Your task to perform on an android device: What's the latest news in space exploration? Image 0: 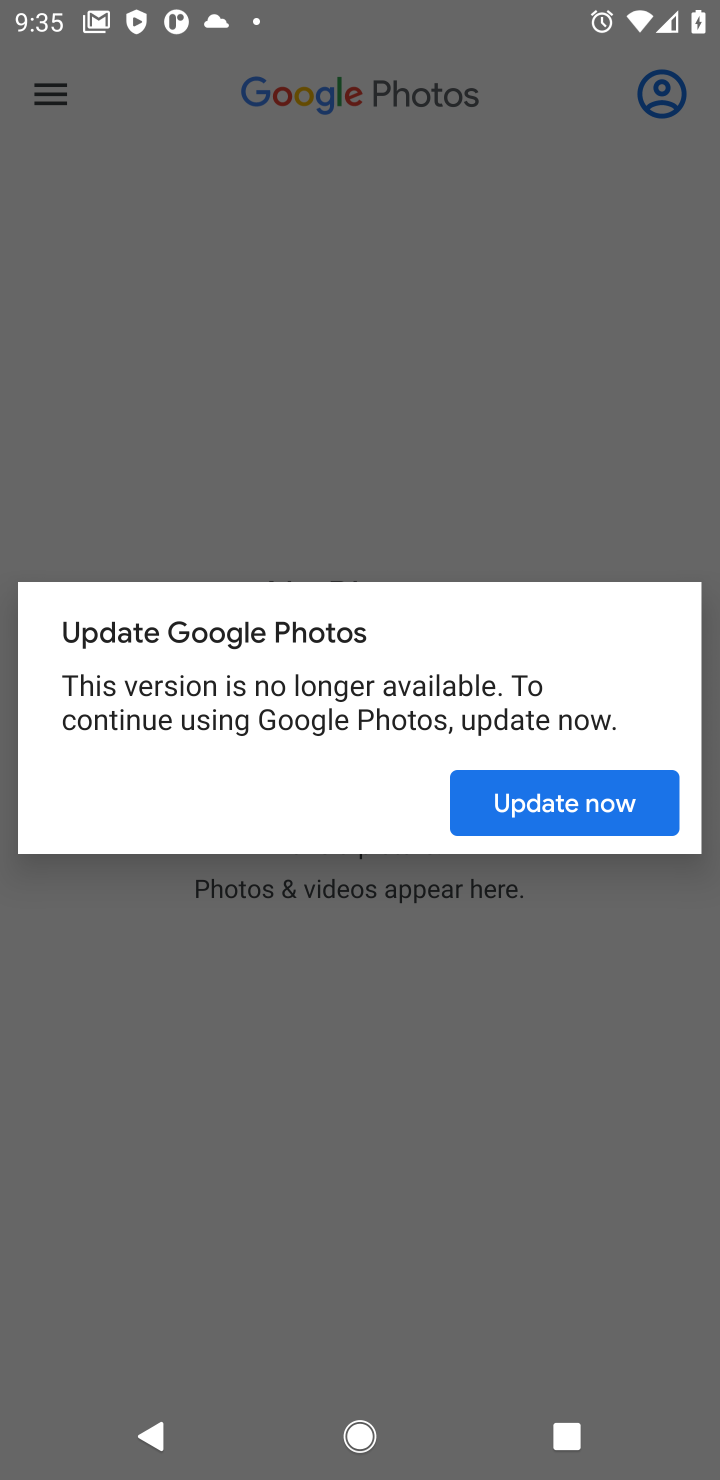
Step 0: press home button
Your task to perform on an android device: What's the latest news in space exploration? Image 1: 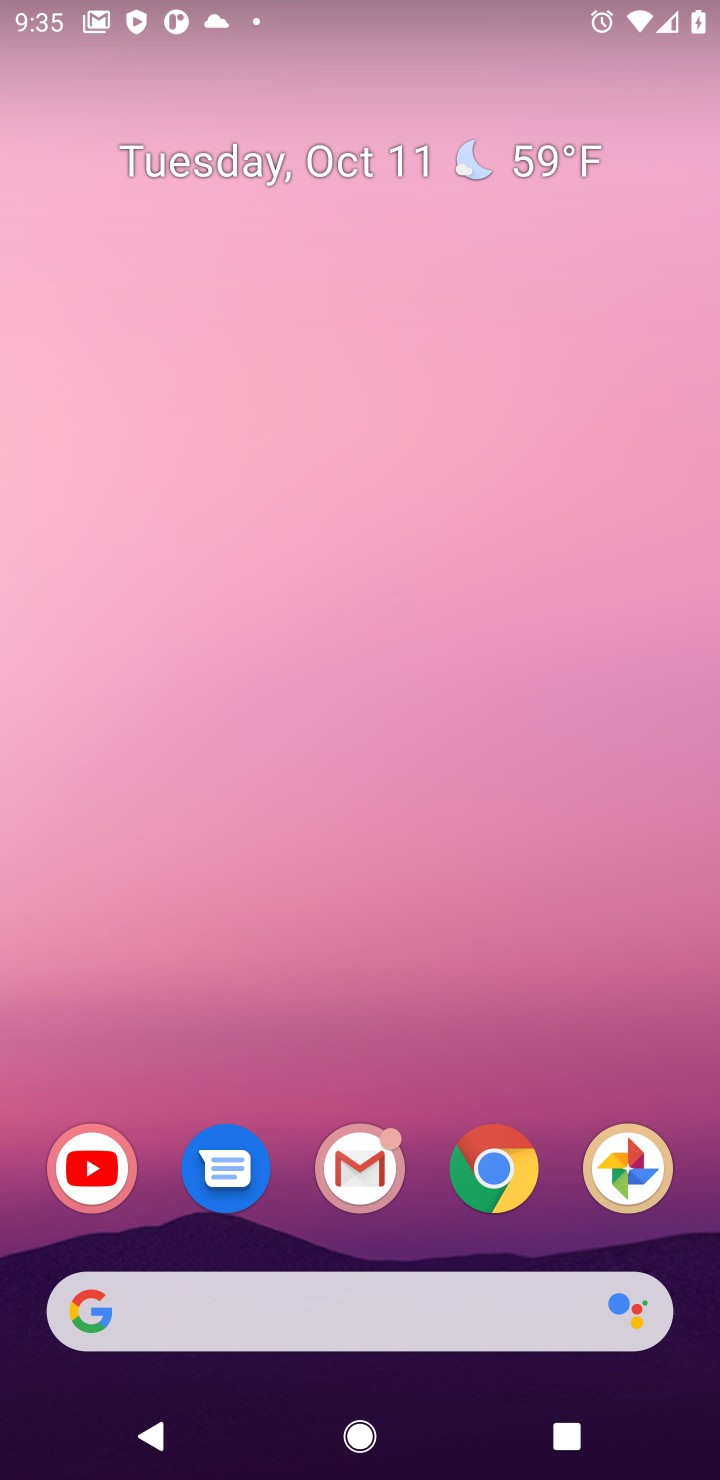
Step 1: click (464, 1173)
Your task to perform on an android device: What's the latest news in space exploration? Image 2: 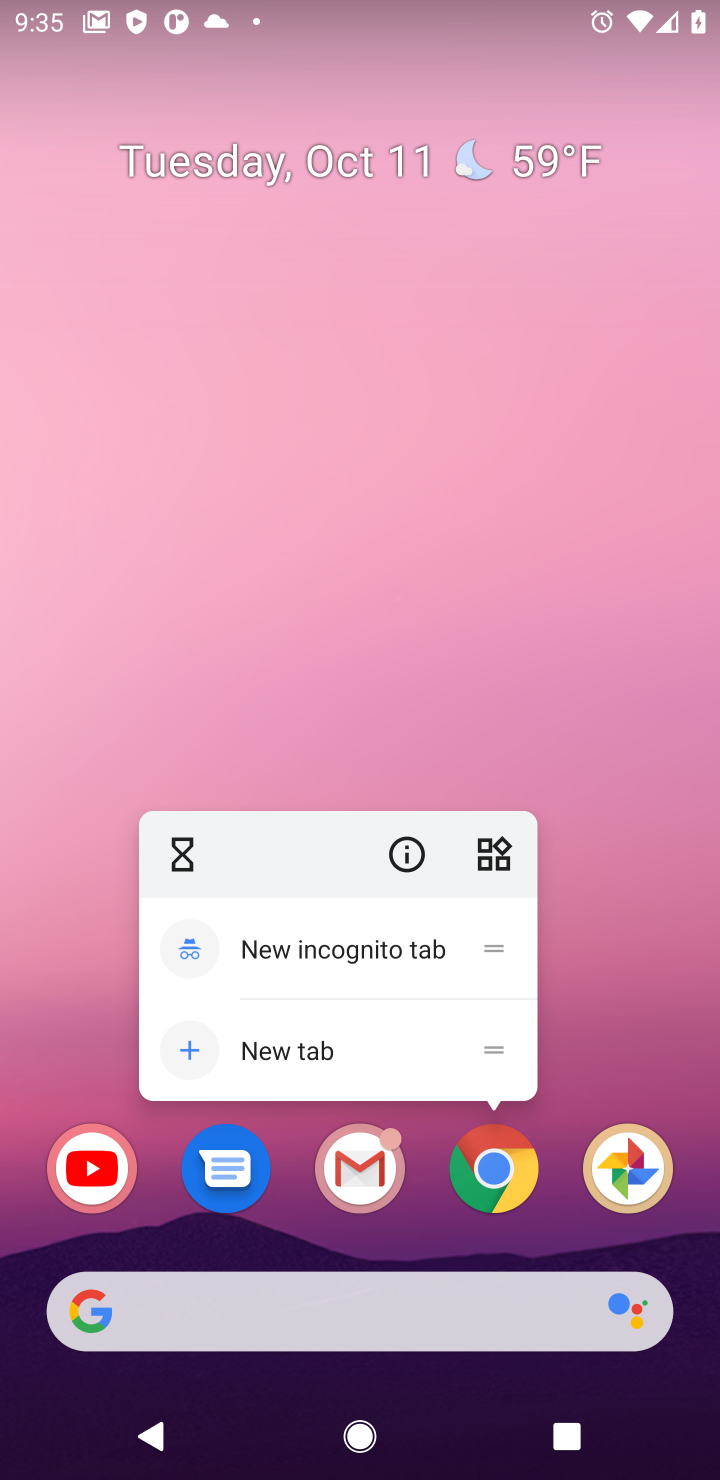
Step 2: click (489, 1172)
Your task to perform on an android device: What's the latest news in space exploration? Image 3: 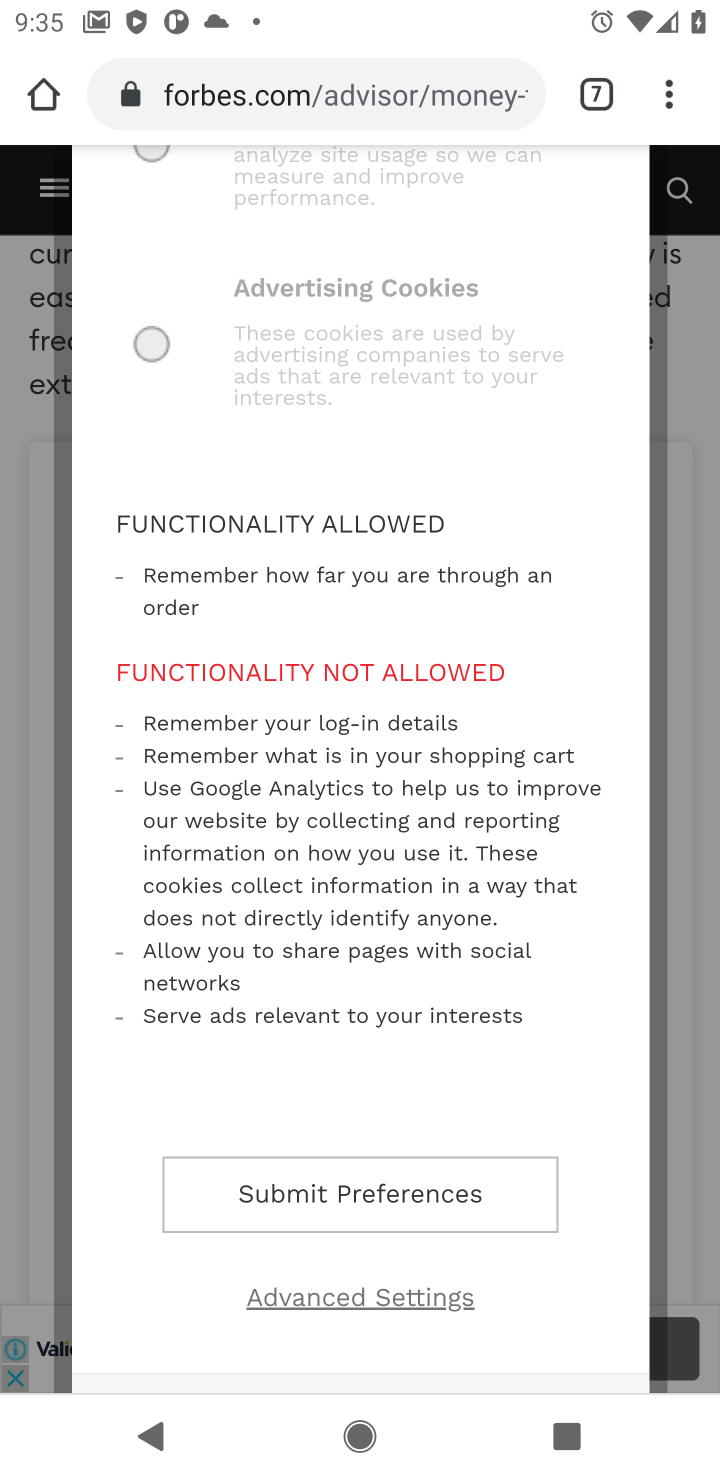
Step 3: click (588, 99)
Your task to perform on an android device: What's the latest news in space exploration? Image 4: 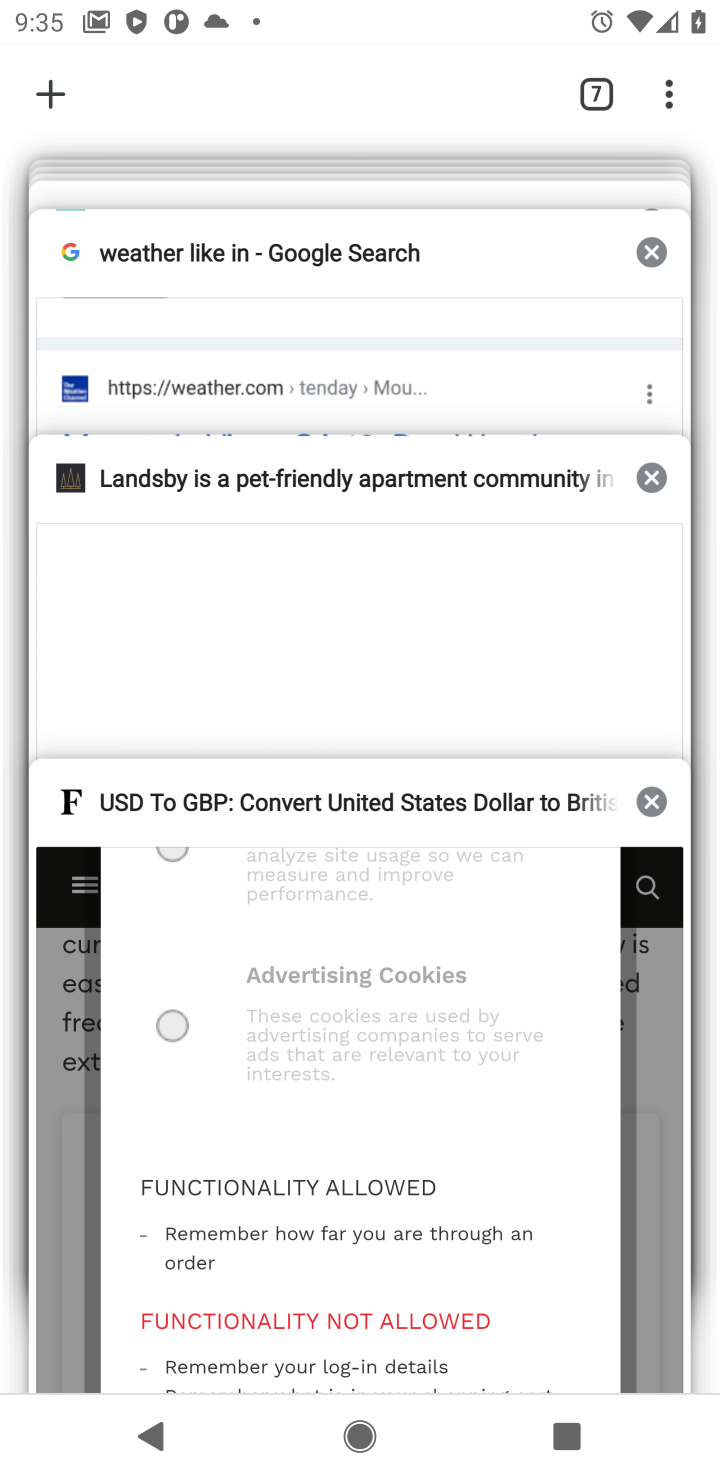
Step 4: click (655, 256)
Your task to perform on an android device: What's the latest news in space exploration? Image 5: 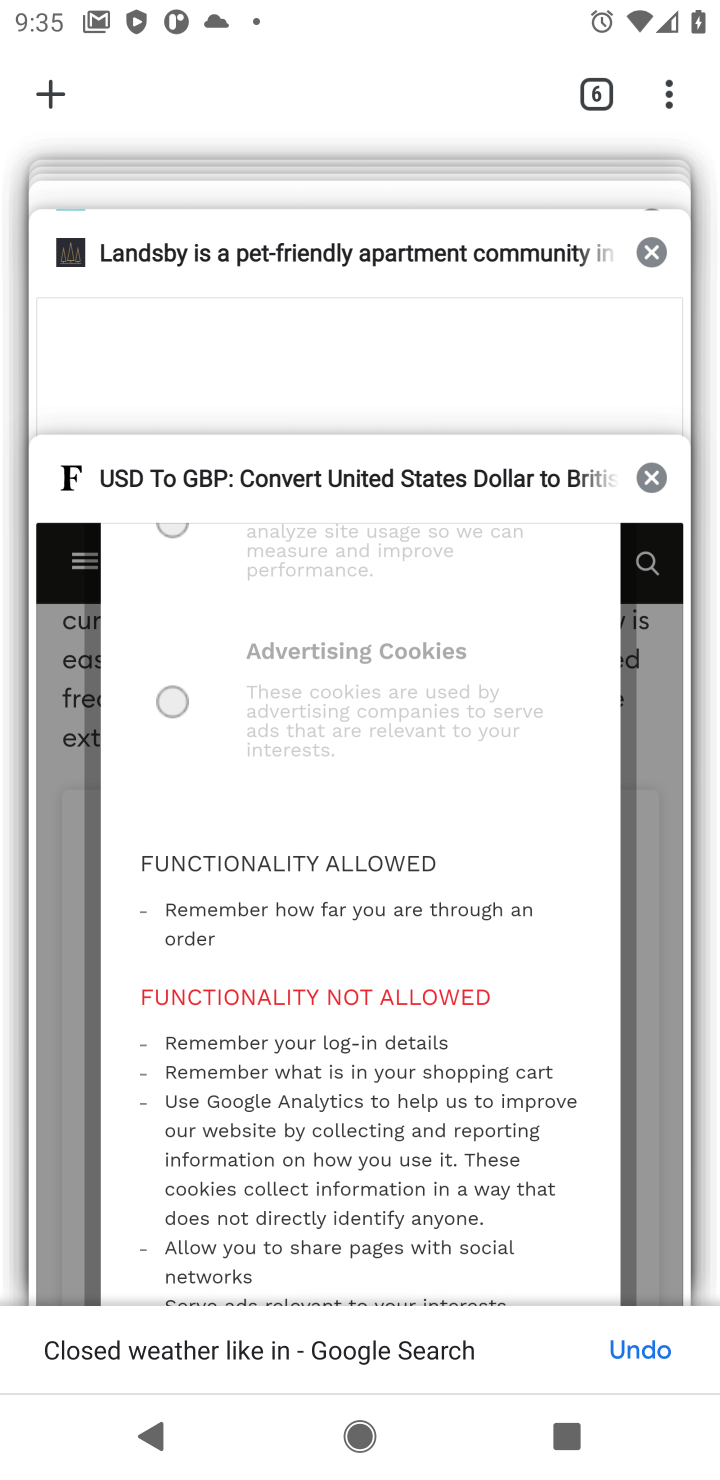
Step 5: click (642, 256)
Your task to perform on an android device: What's the latest news in space exploration? Image 6: 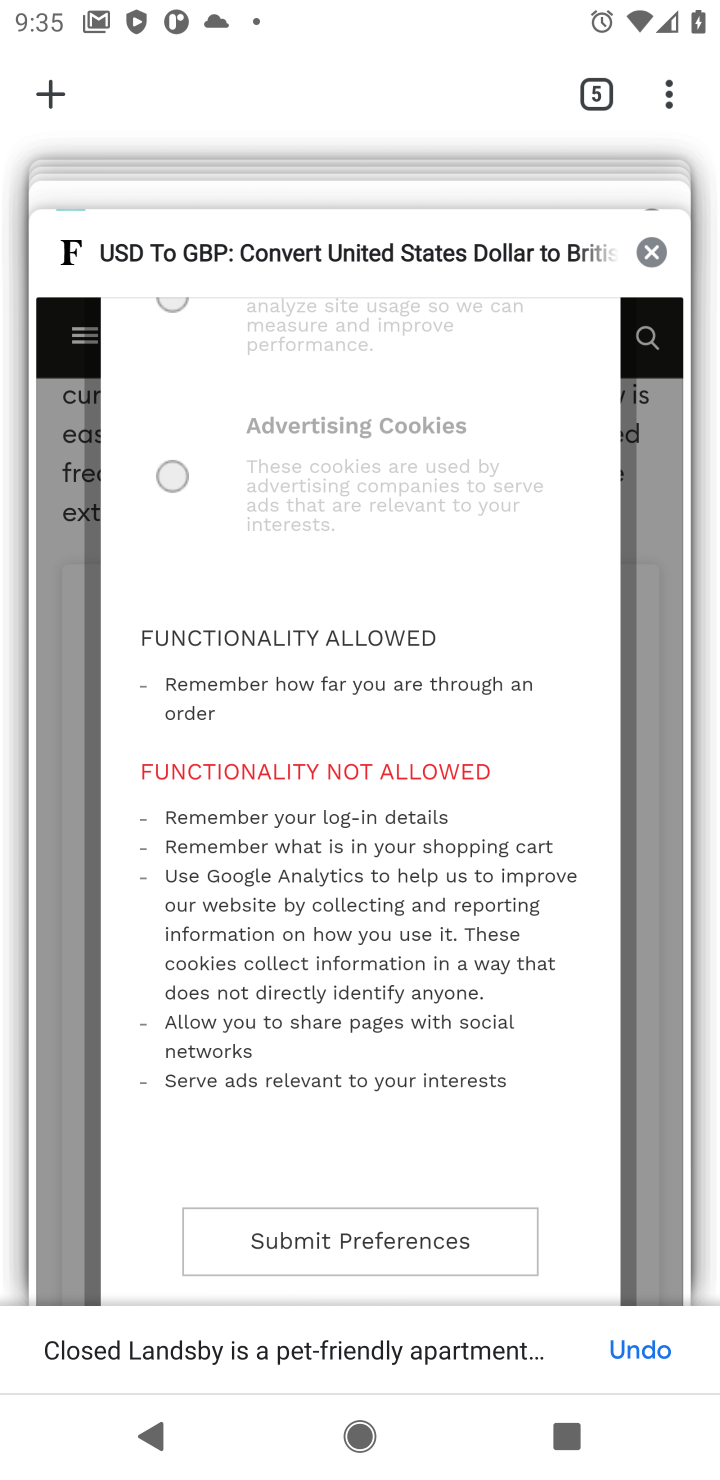
Step 6: click (653, 261)
Your task to perform on an android device: What's the latest news in space exploration? Image 7: 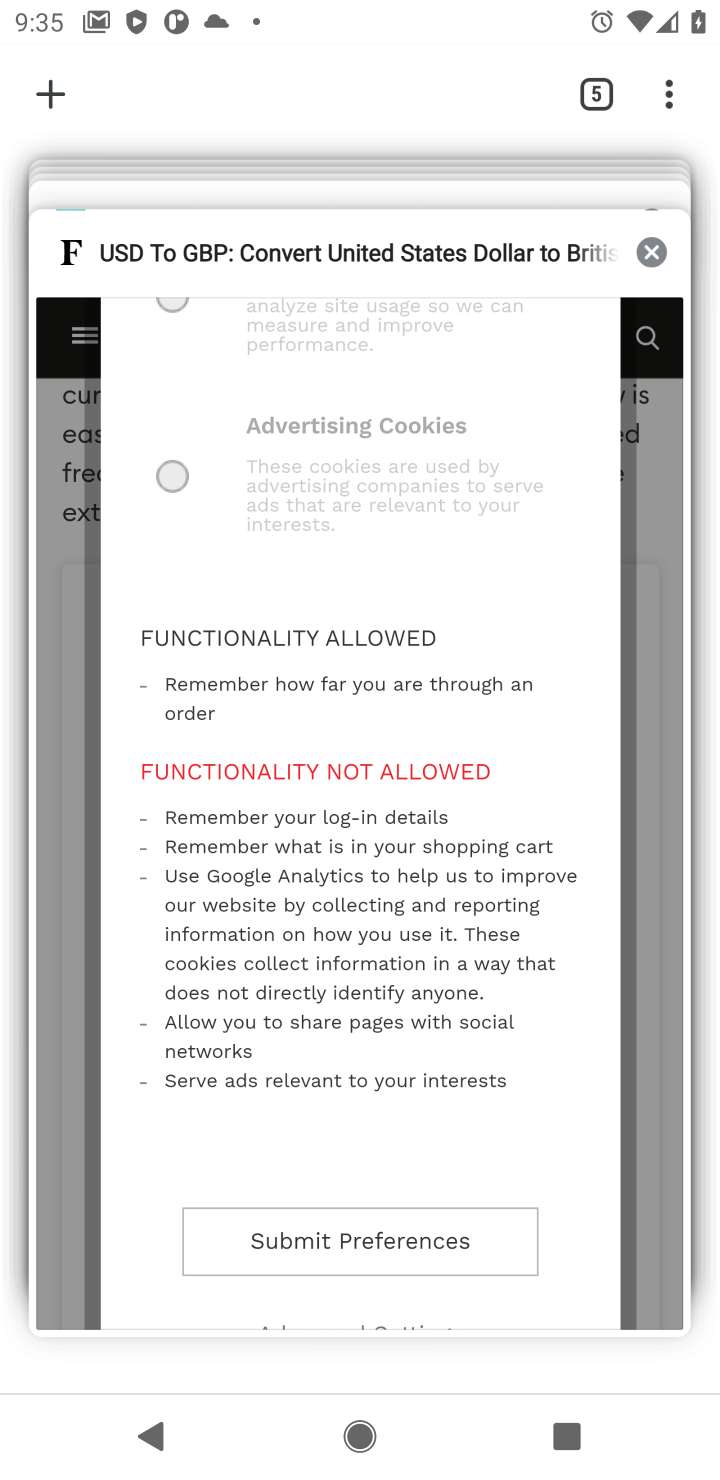
Step 7: click (653, 259)
Your task to perform on an android device: What's the latest news in space exploration? Image 8: 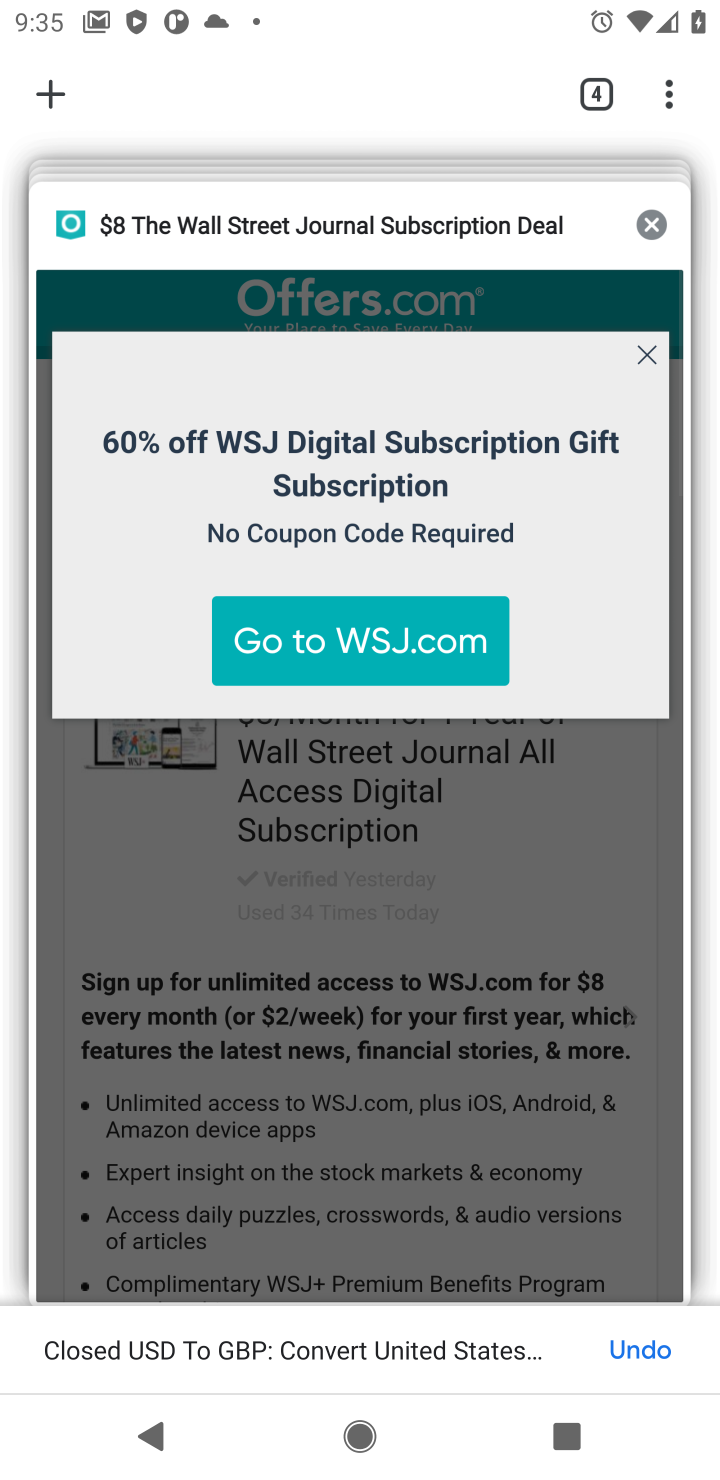
Step 8: click (651, 223)
Your task to perform on an android device: What's the latest news in space exploration? Image 9: 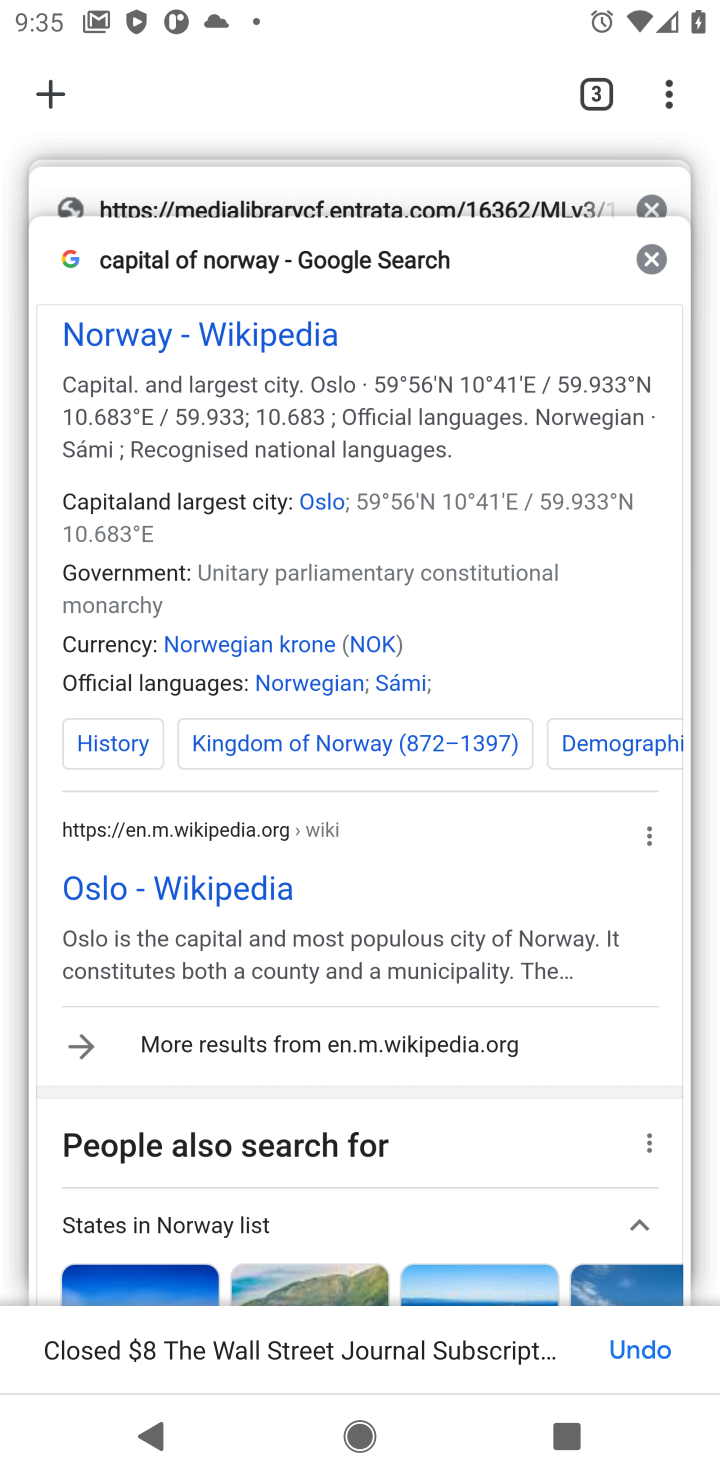
Step 9: click (645, 261)
Your task to perform on an android device: What's the latest news in space exploration? Image 10: 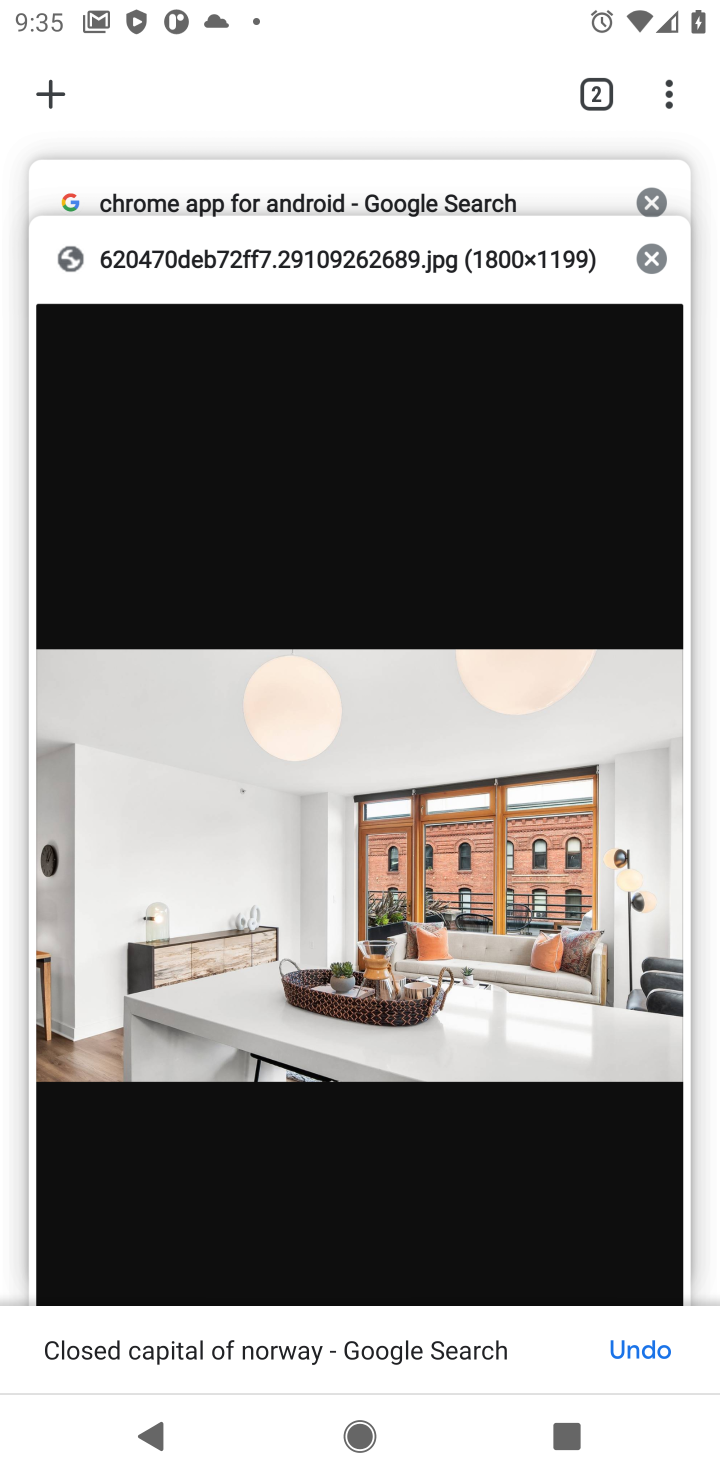
Step 10: click (645, 265)
Your task to perform on an android device: What's the latest news in space exploration? Image 11: 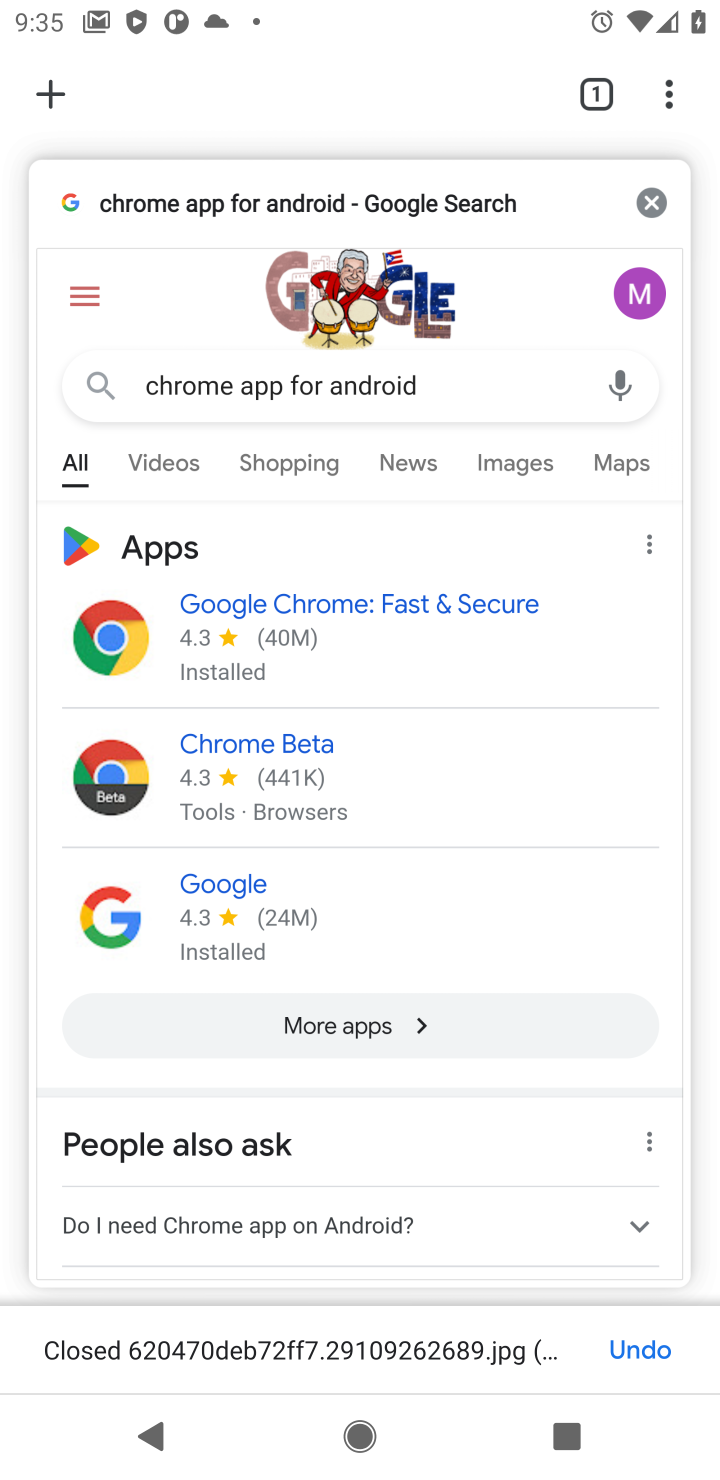
Step 11: click (662, 189)
Your task to perform on an android device: What's the latest news in space exploration? Image 12: 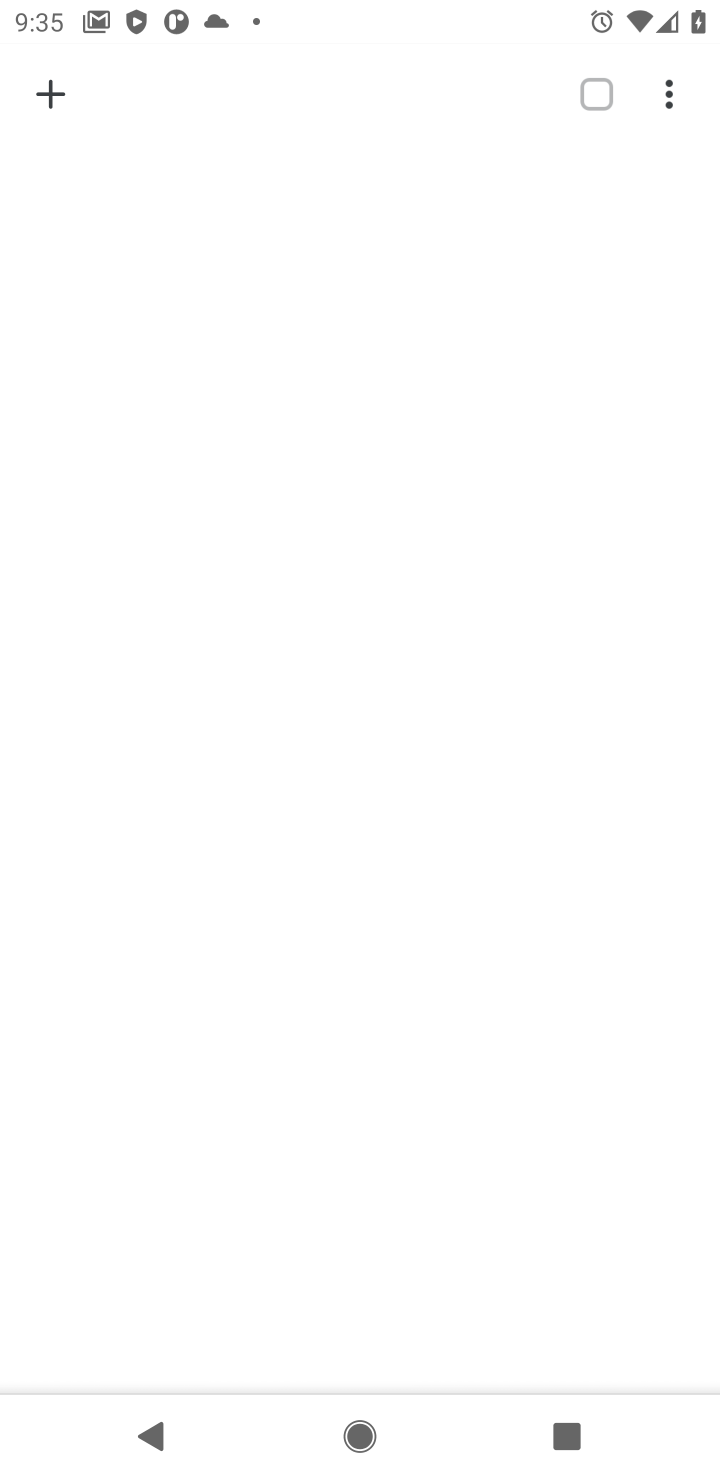
Step 12: click (656, 89)
Your task to perform on an android device: What's the latest news in space exploration? Image 13: 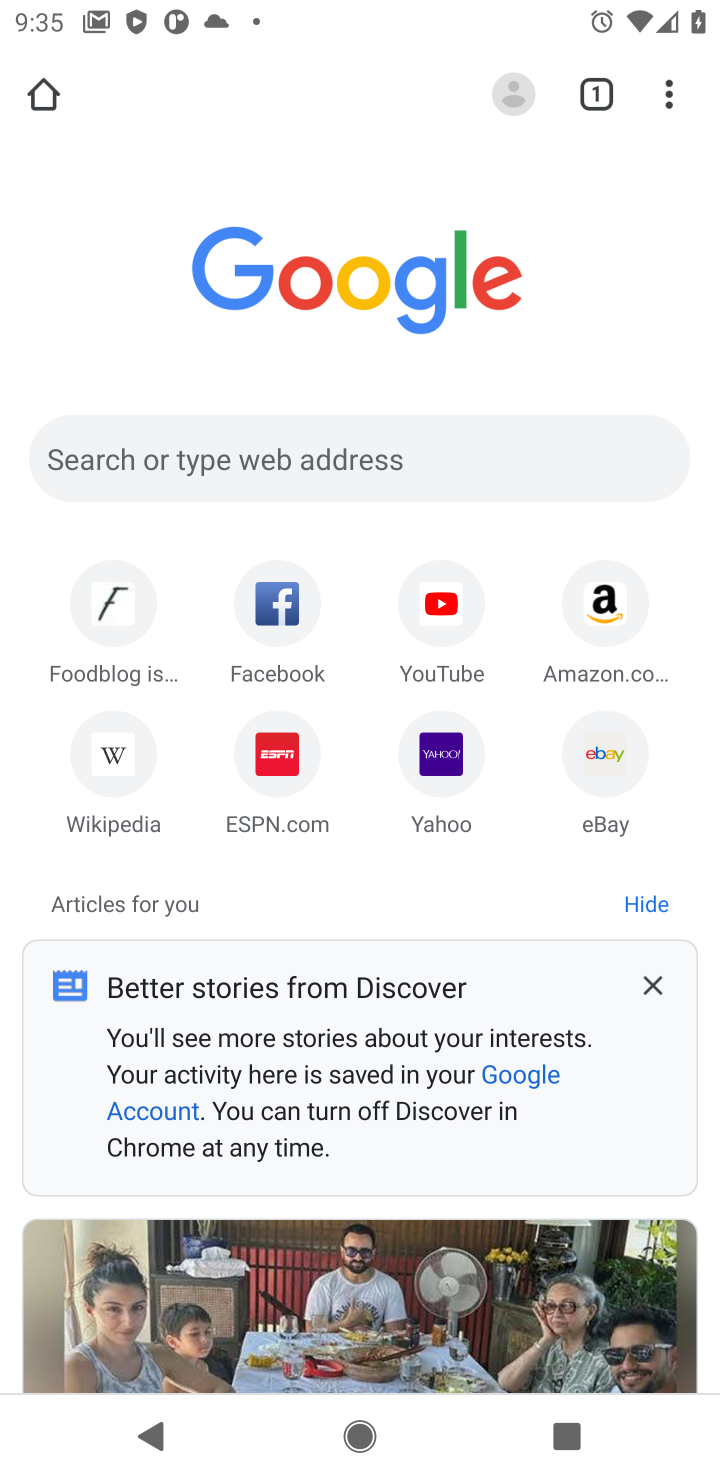
Step 13: click (432, 489)
Your task to perform on an android device: What's the latest news in space exploration? Image 14: 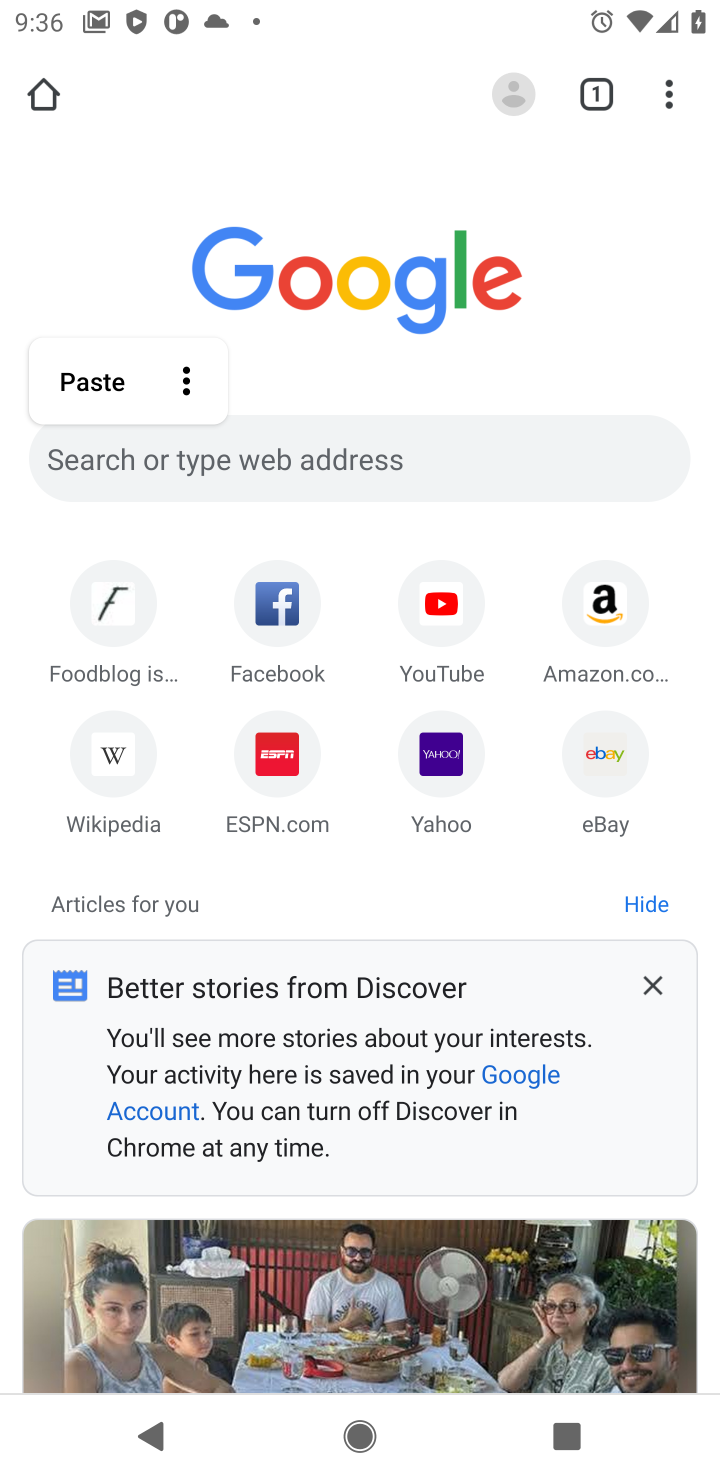
Step 14: type "latest news in space exploration"
Your task to perform on an android device: What's the latest news in space exploration? Image 15: 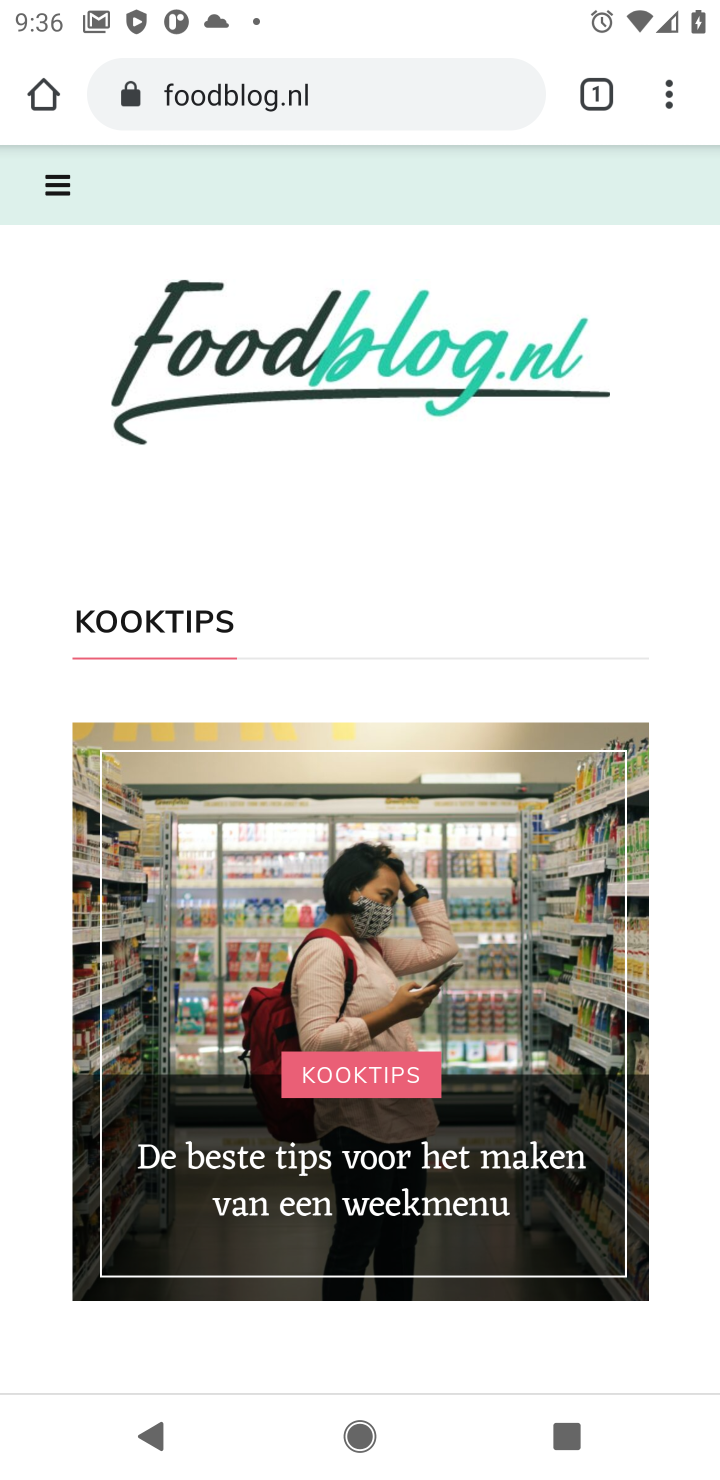
Step 15: press back button
Your task to perform on an android device: What's the latest news in space exploration? Image 16: 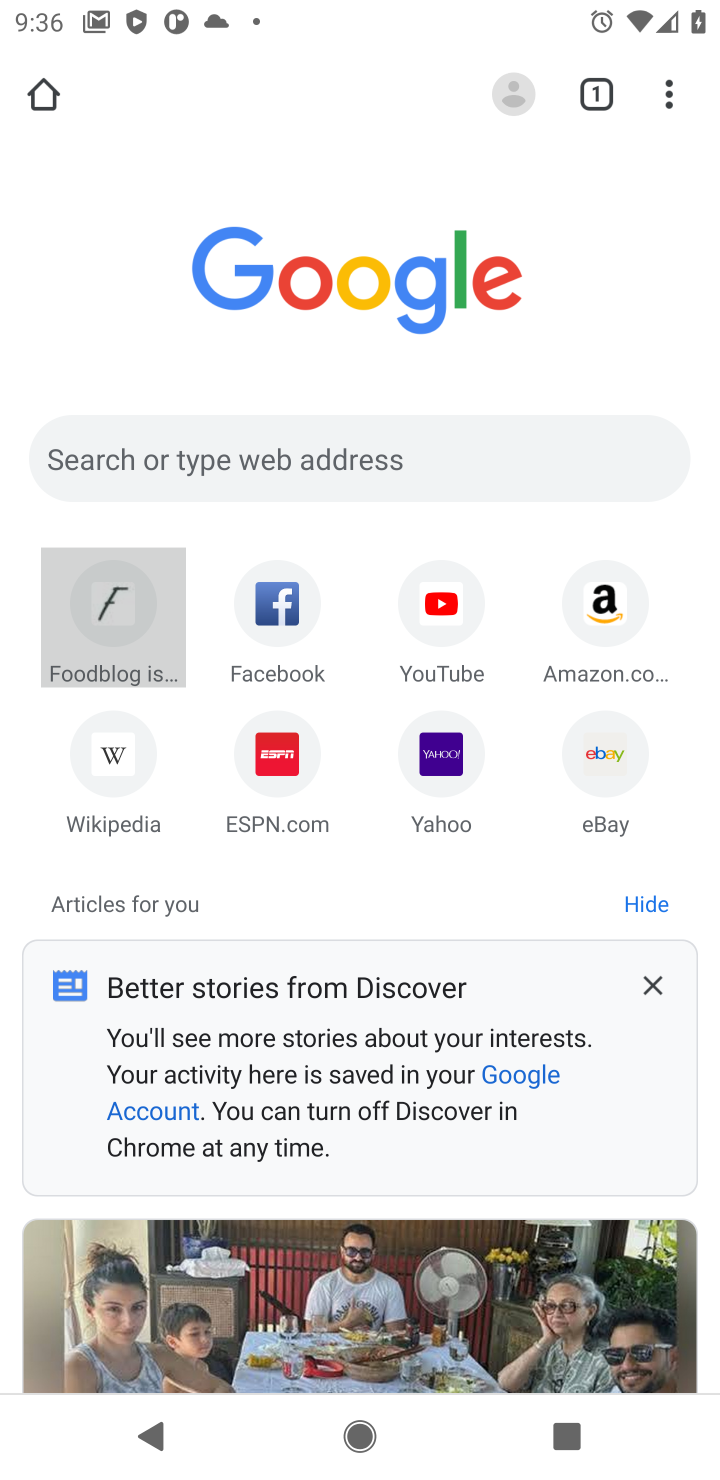
Step 16: click (481, 456)
Your task to perform on an android device: What's the latest news in space exploration? Image 17: 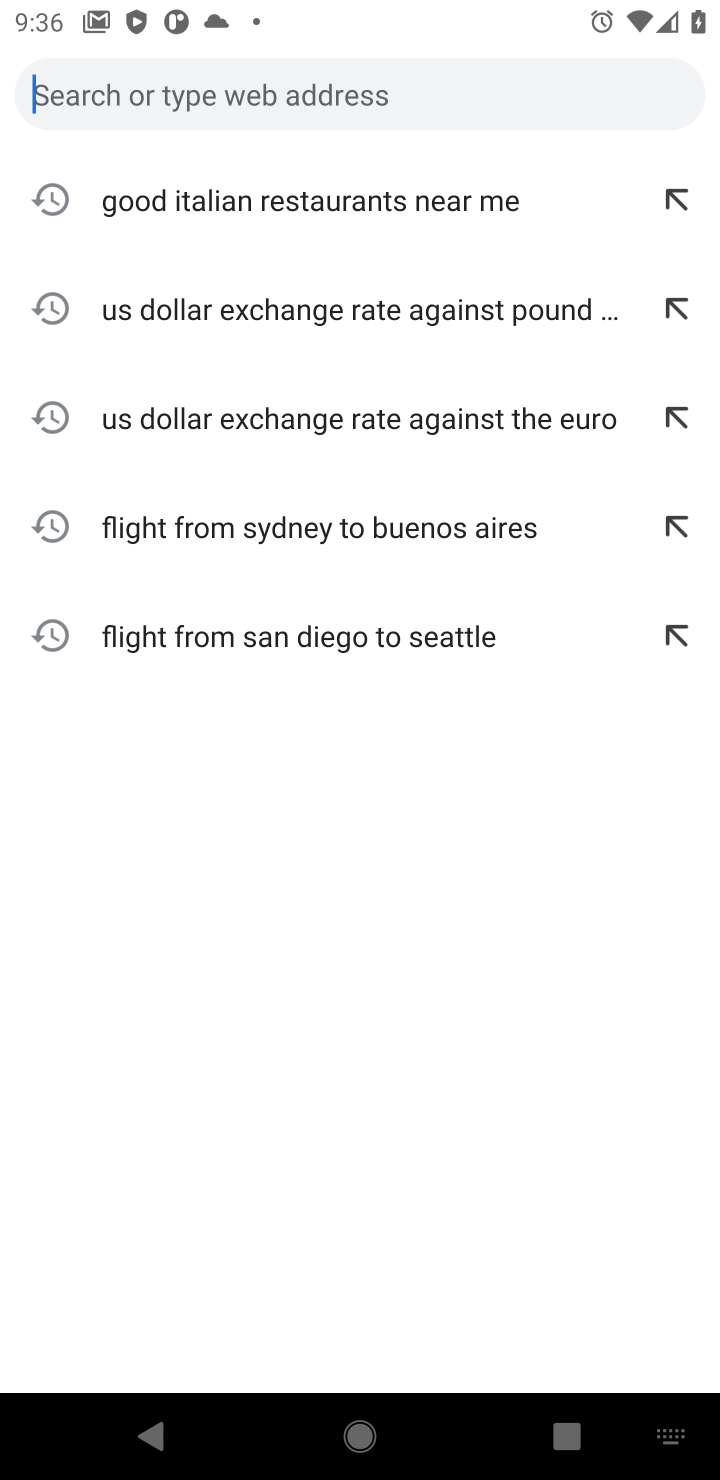
Step 17: type "latest news in space exploration"
Your task to perform on an android device: What's the latest news in space exploration? Image 18: 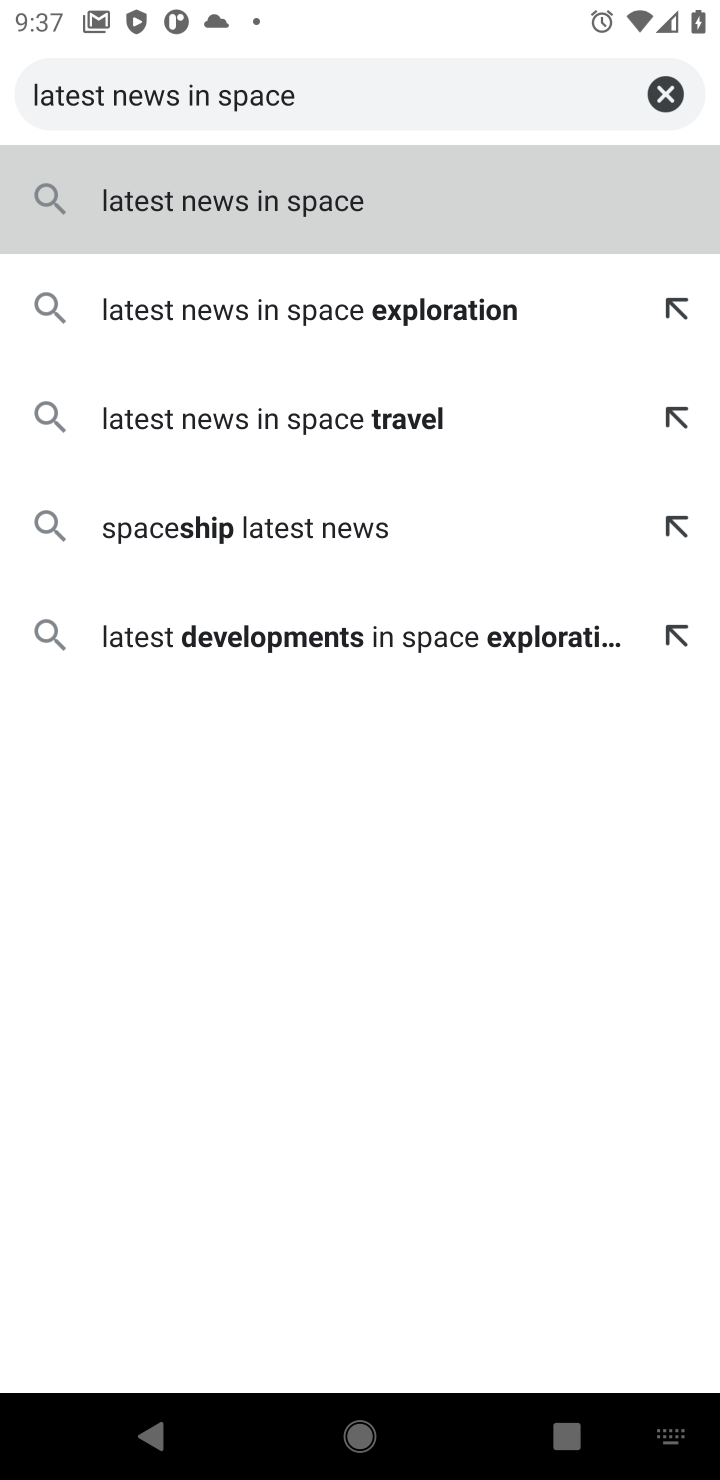
Step 18: type ""
Your task to perform on an android device: What's the latest news in space exploration? Image 19: 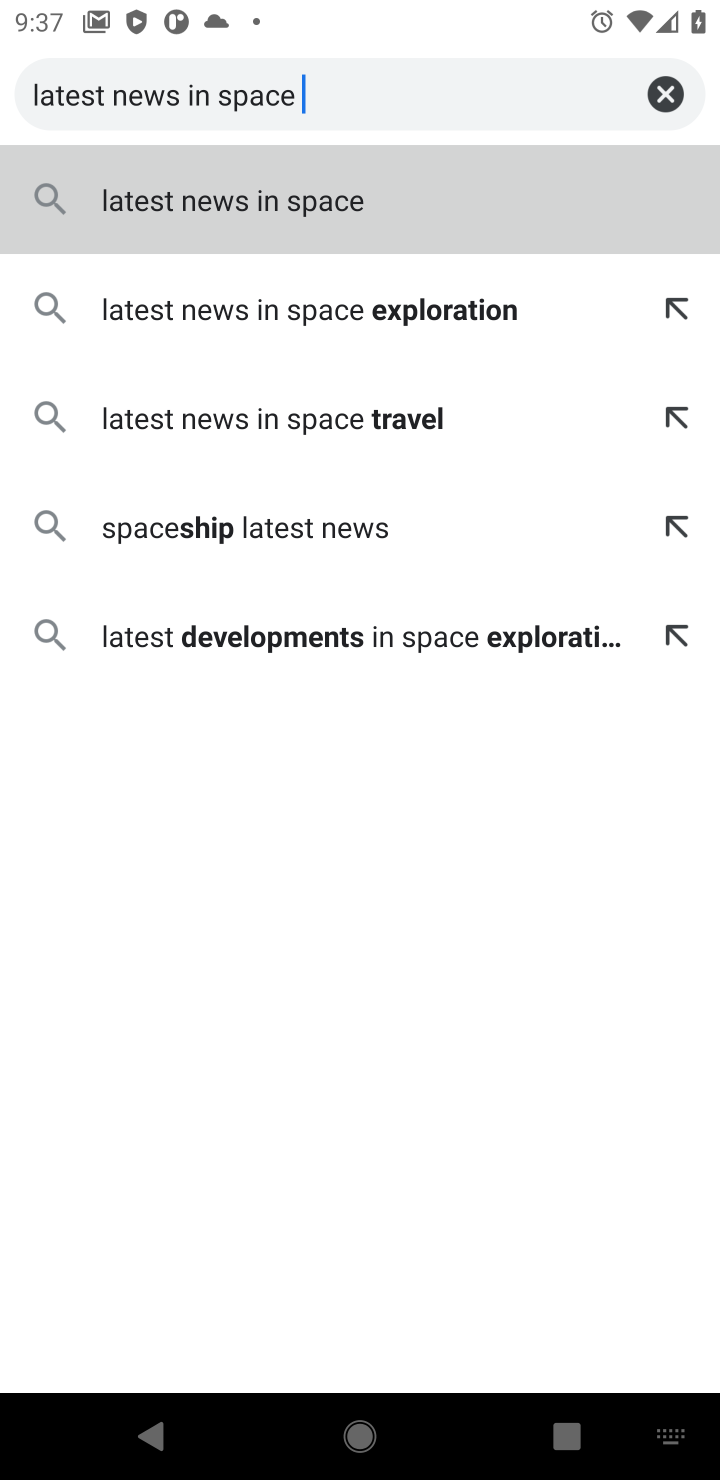
Step 19: click (376, 318)
Your task to perform on an android device: What's the latest news in space exploration? Image 20: 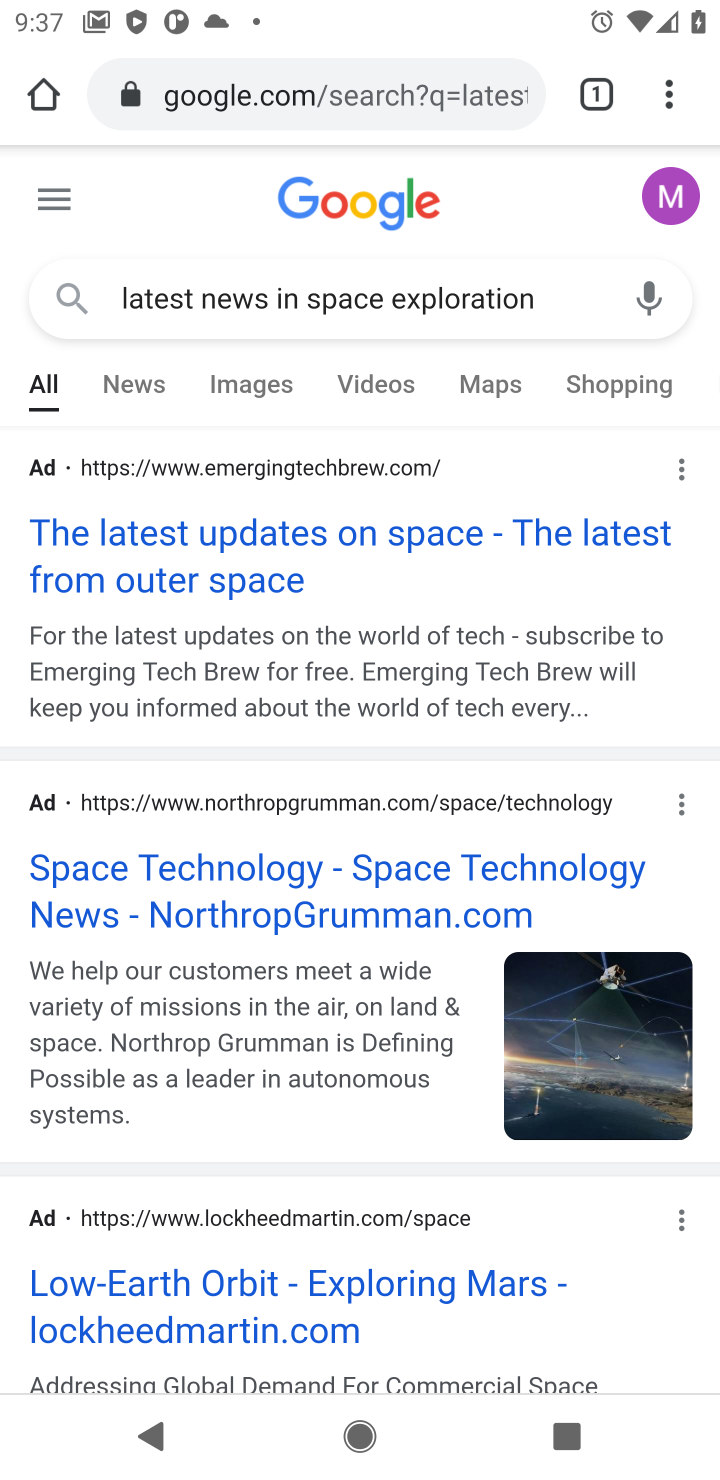
Step 20: drag from (239, 1128) to (338, 346)
Your task to perform on an android device: What's the latest news in space exploration? Image 21: 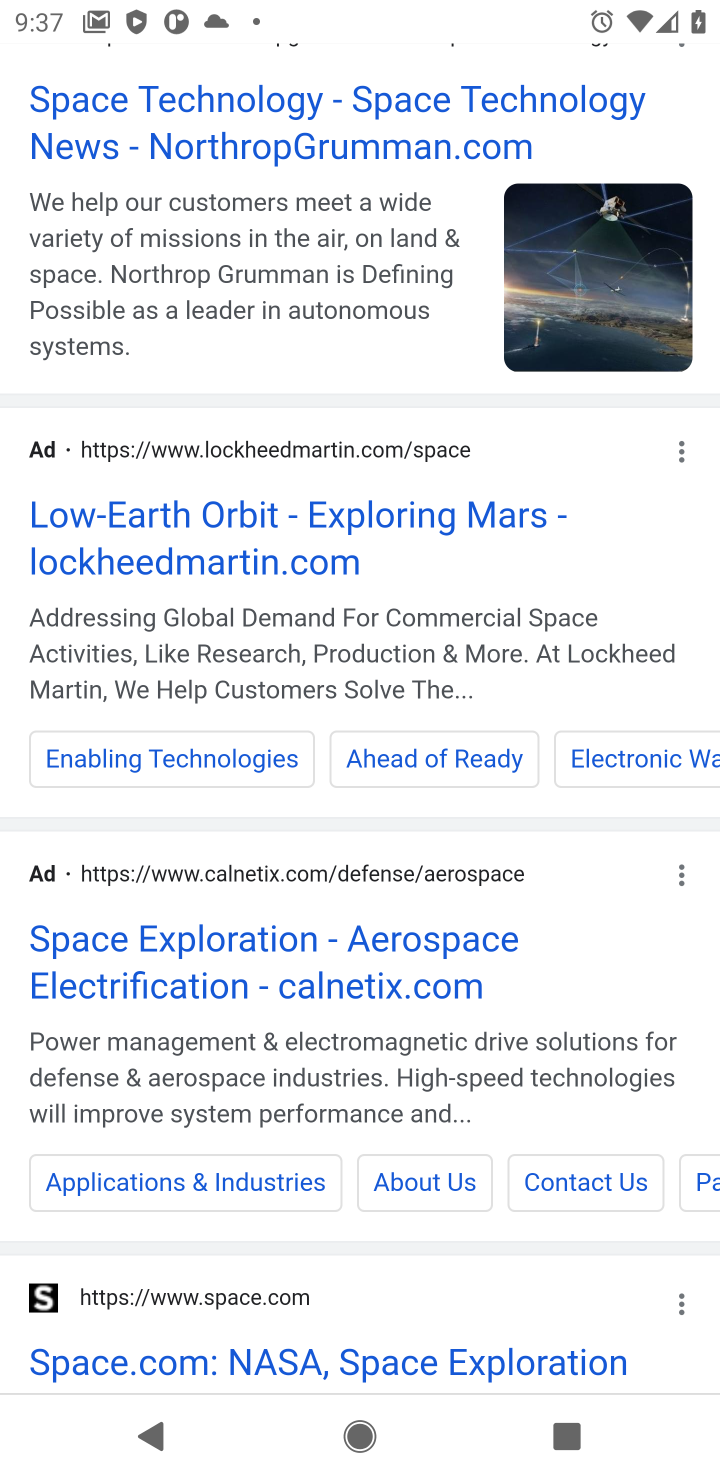
Step 21: click (250, 950)
Your task to perform on an android device: What's the latest news in space exploration? Image 22: 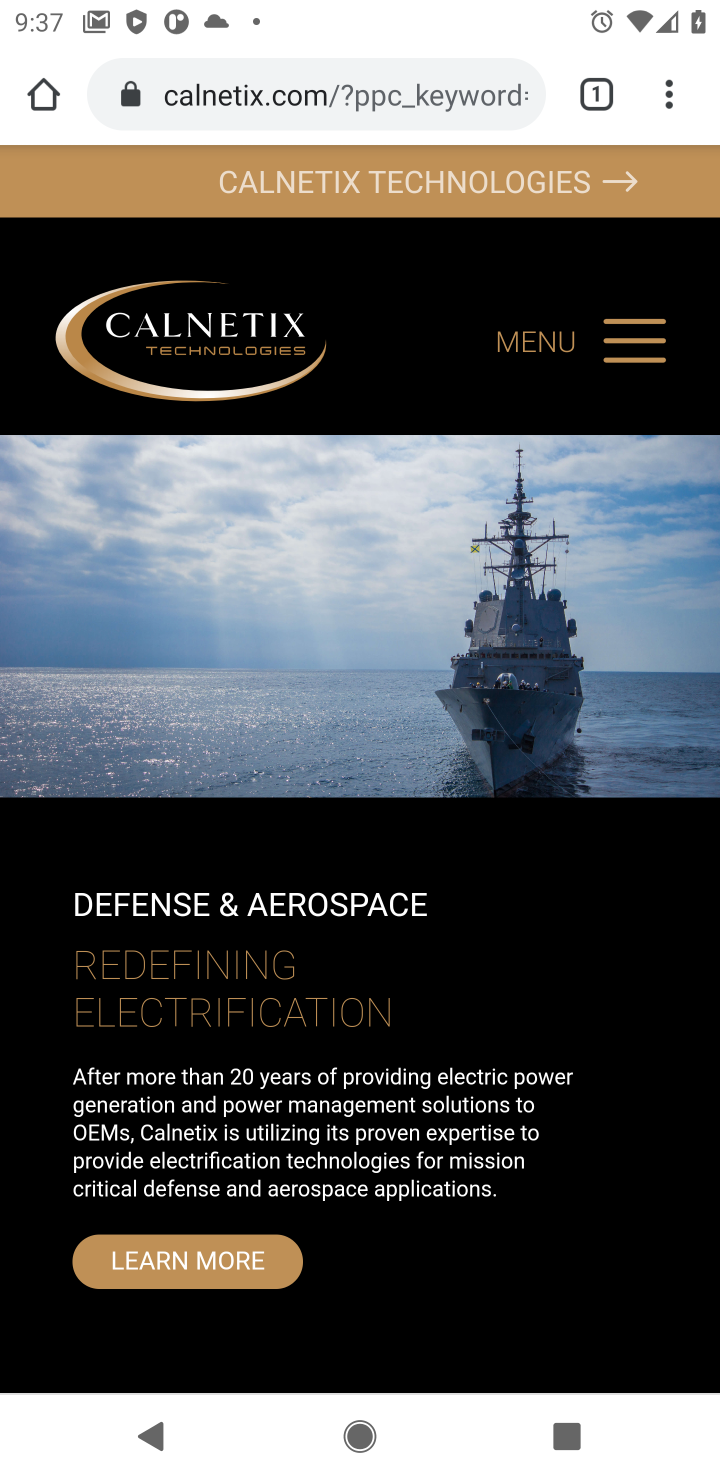
Step 22: drag from (481, 867) to (488, 503)
Your task to perform on an android device: What's the latest news in space exploration? Image 23: 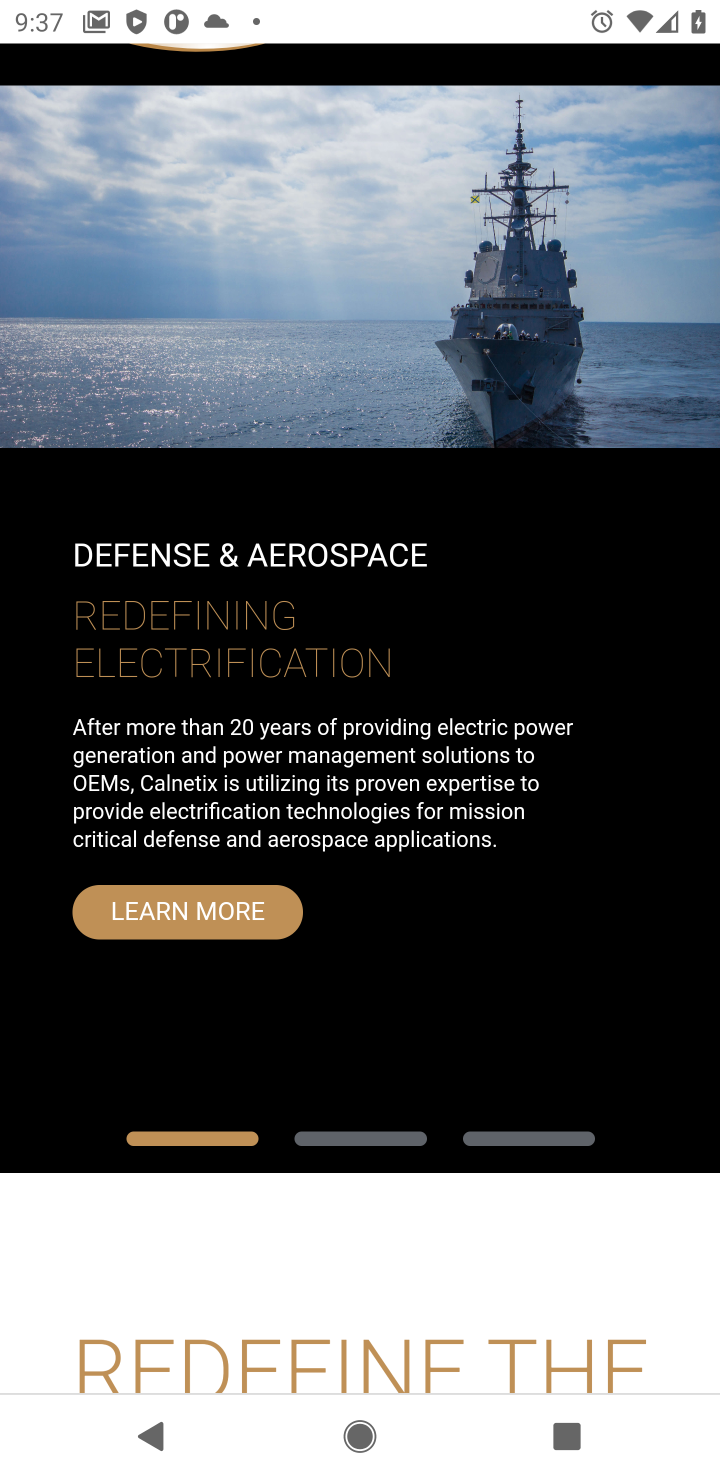
Step 23: drag from (615, 907) to (647, 460)
Your task to perform on an android device: What's the latest news in space exploration? Image 24: 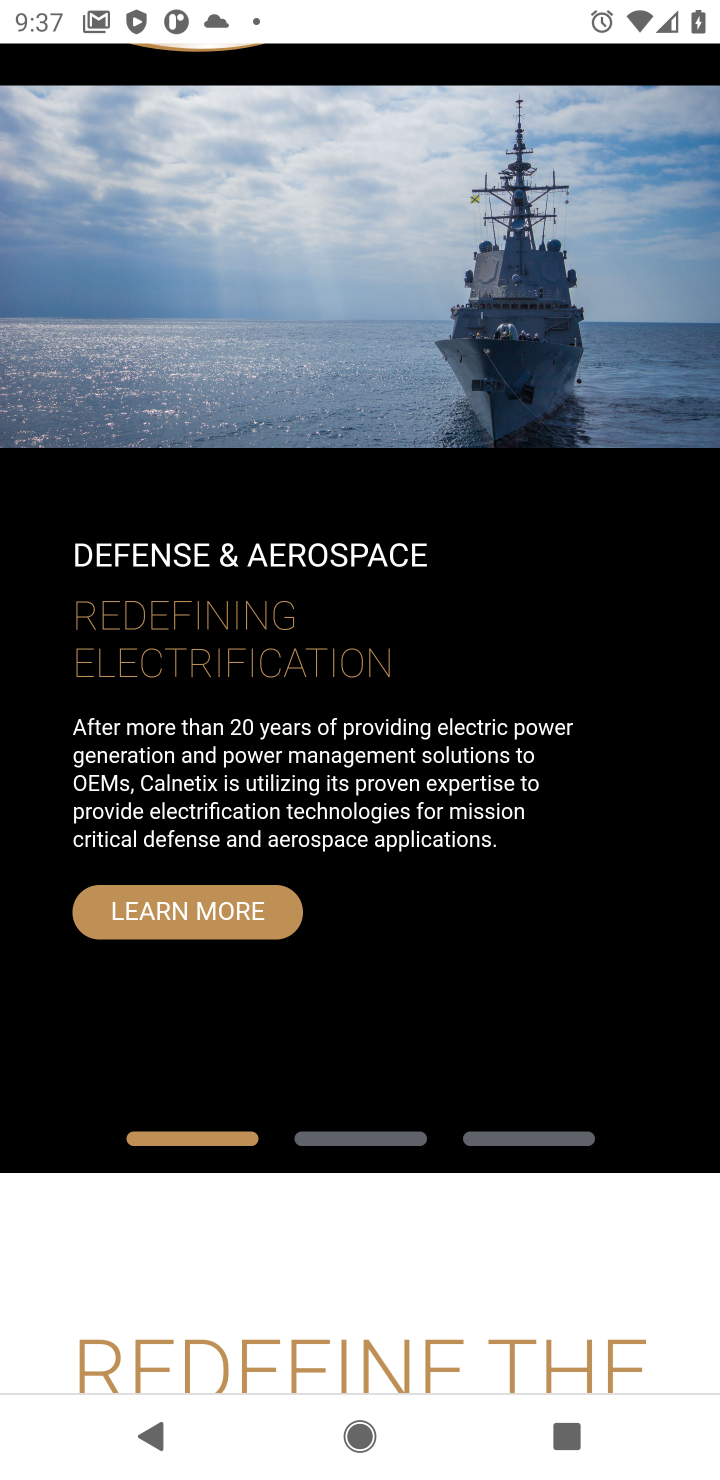
Step 24: drag from (512, 1174) to (528, 442)
Your task to perform on an android device: What's the latest news in space exploration? Image 25: 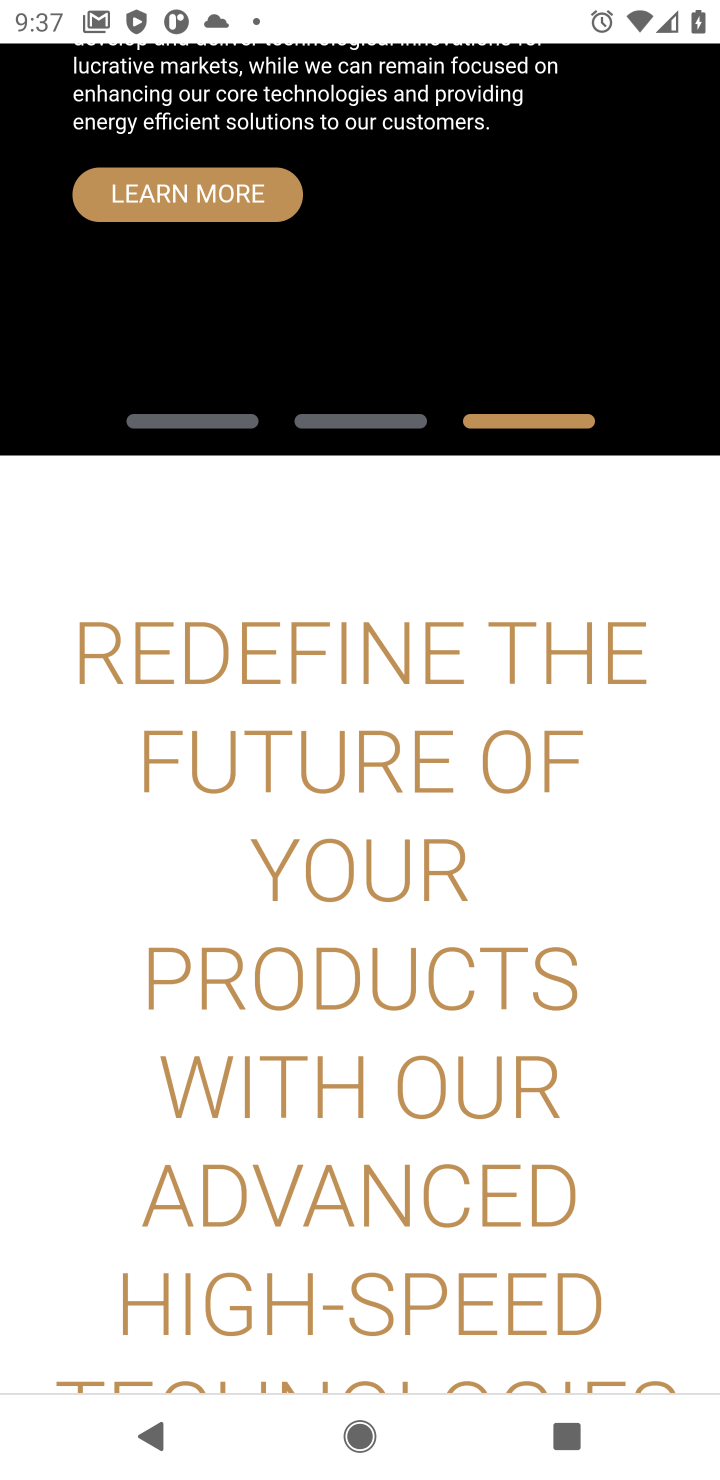
Step 25: drag from (425, 884) to (425, 385)
Your task to perform on an android device: What's the latest news in space exploration? Image 26: 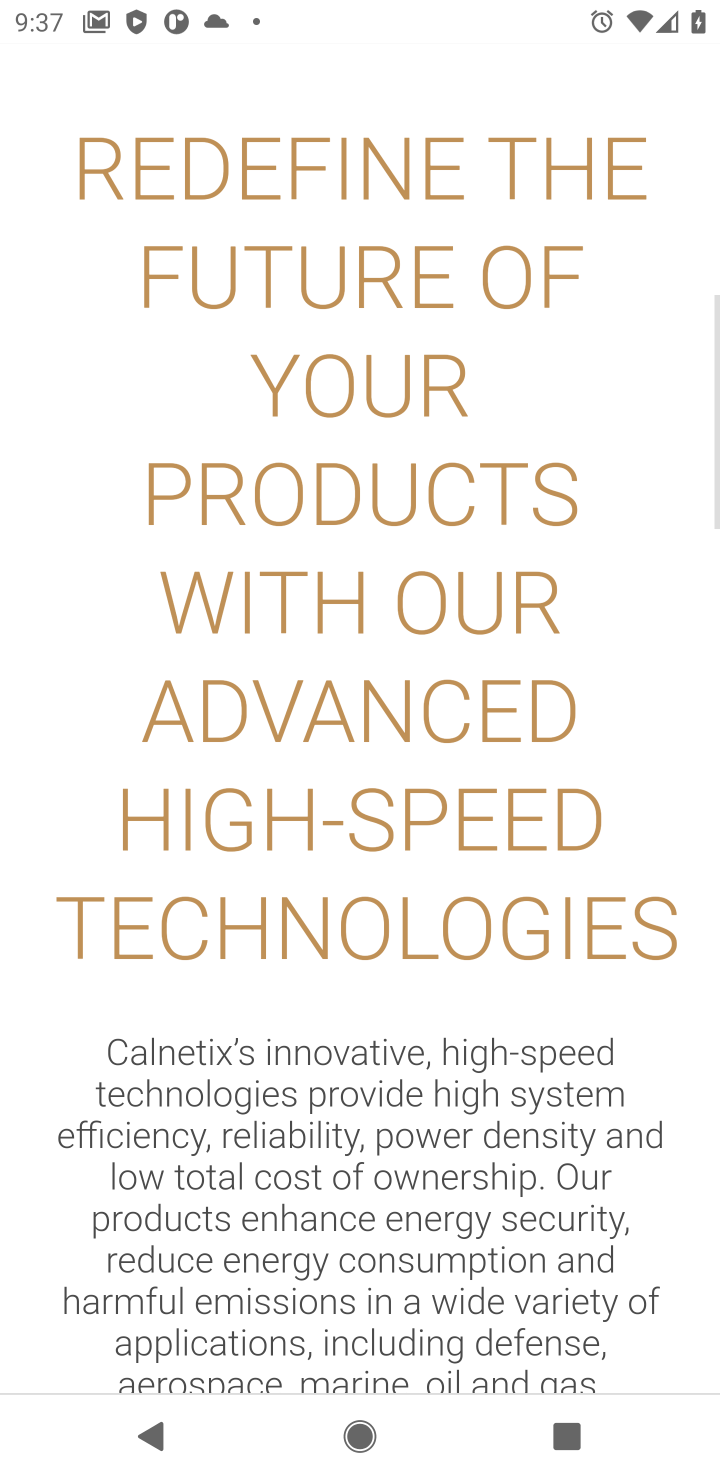
Step 26: click (391, 586)
Your task to perform on an android device: What's the latest news in space exploration? Image 27: 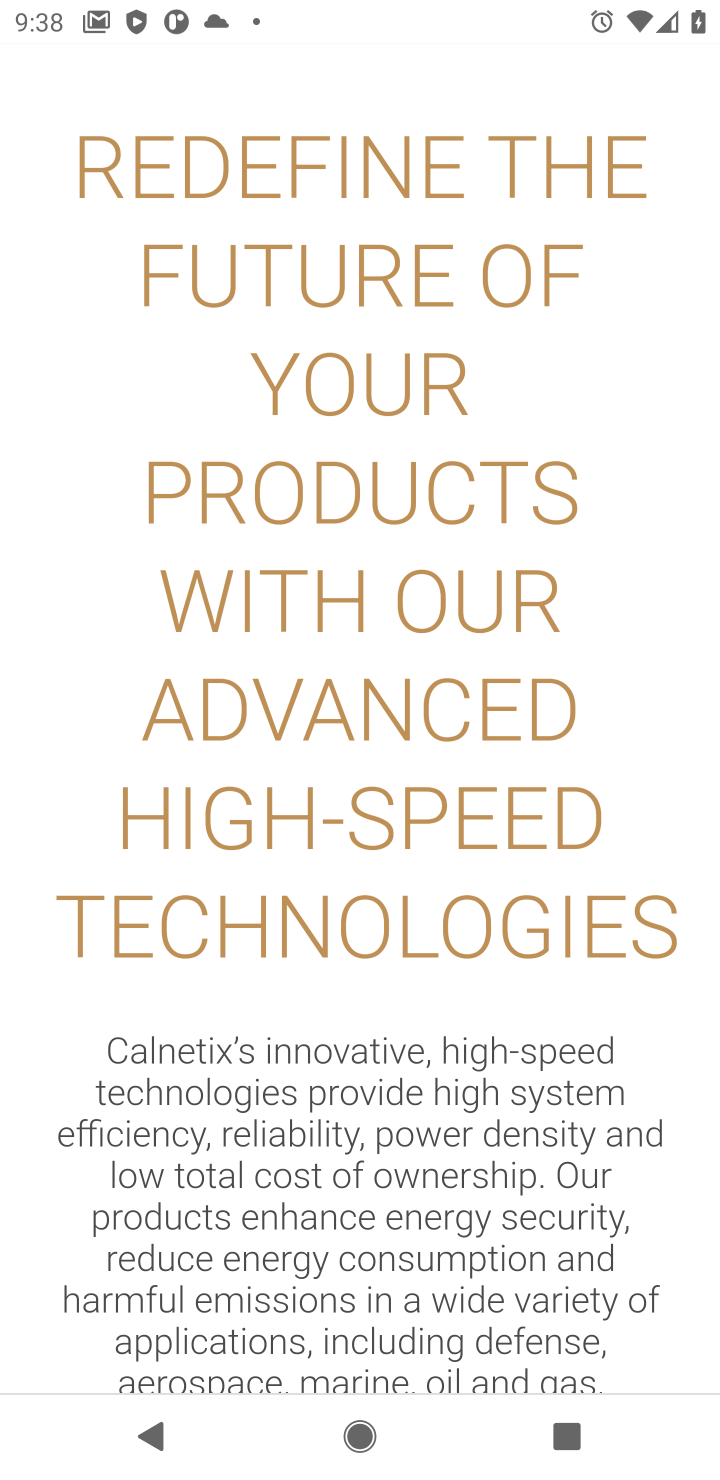
Step 27: drag from (354, 1027) to (354, 572)
Your task to perform on an android device: What's the latest news in space exploration? Image 28: 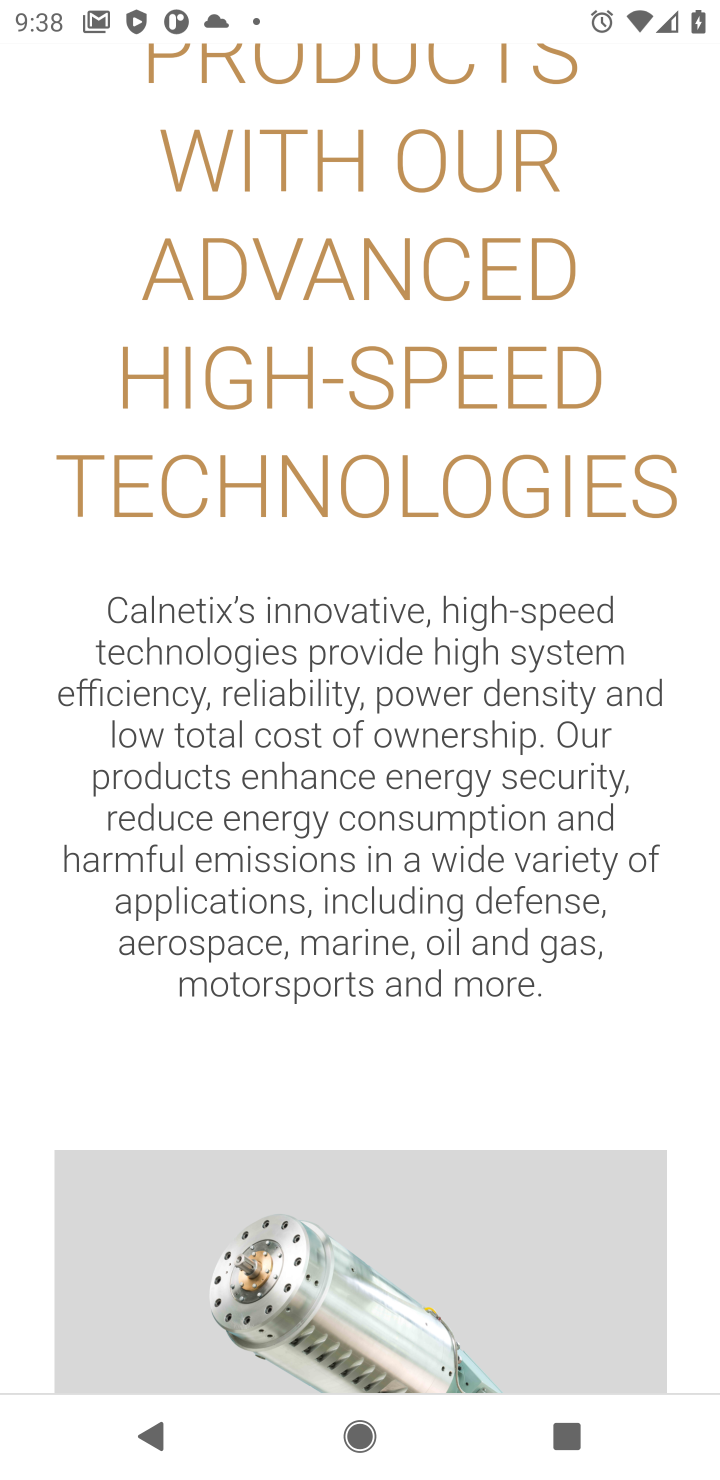
Step 28: click (332, 491)
Your task to perform on an android device: What's the latest news in space exploration? Image 29: 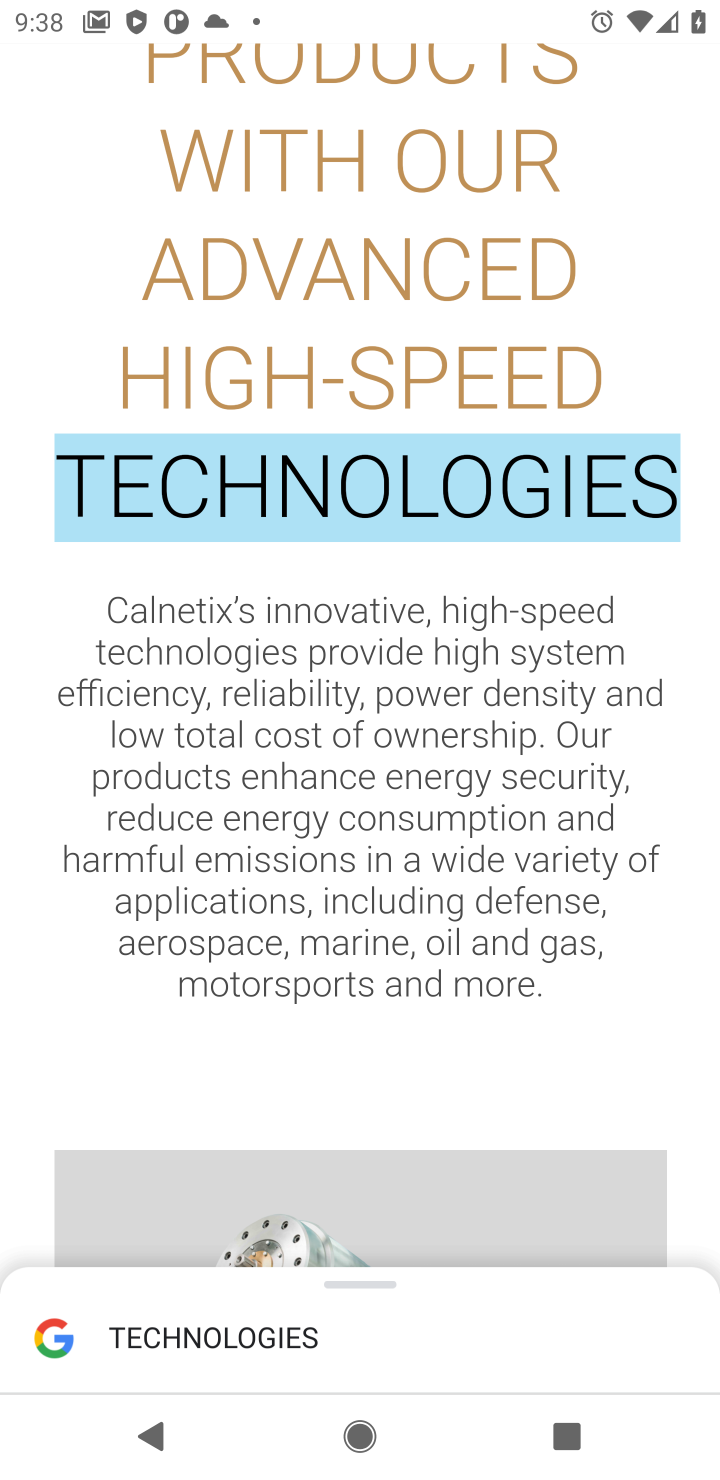
Step 29: task complete